Your task to perform on an android device: Show me popular games on the Play Store Image 0: 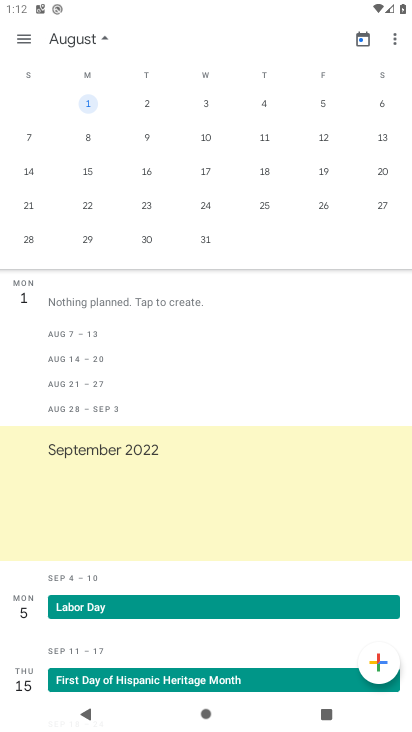
Step 0: press home button
Your task to perform on an android device: Show me popular games on the Play Store Image 1: 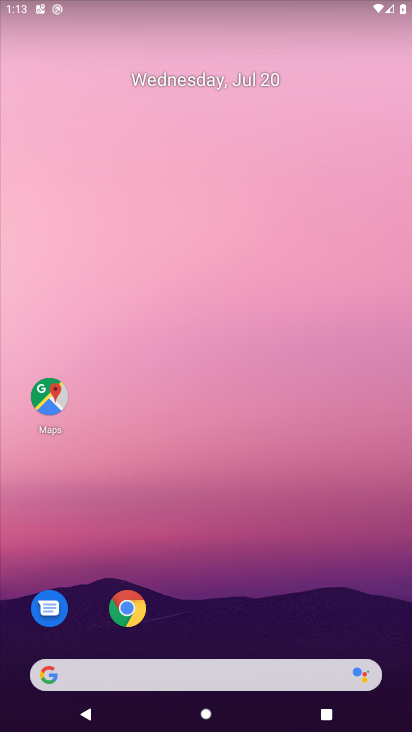
Step 1: drag from (213, 654) to (147, 251)
Your task to perform on an android device: Show me popular games on the Play Store Image 2: 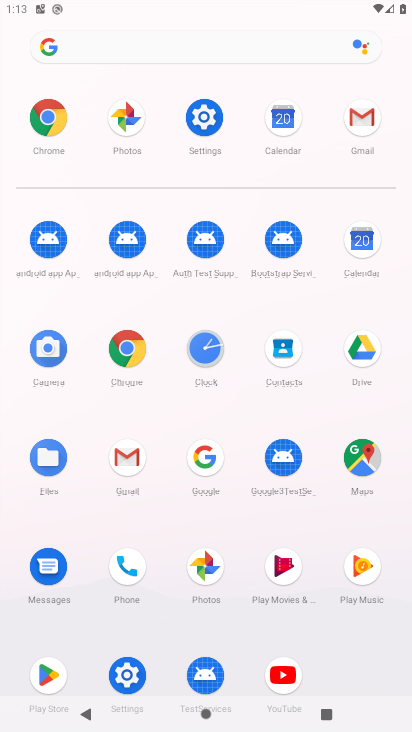
Step 2: click (44, 673)
Your task to perform on an android device: Show me popular games on the Play Store Image 3: 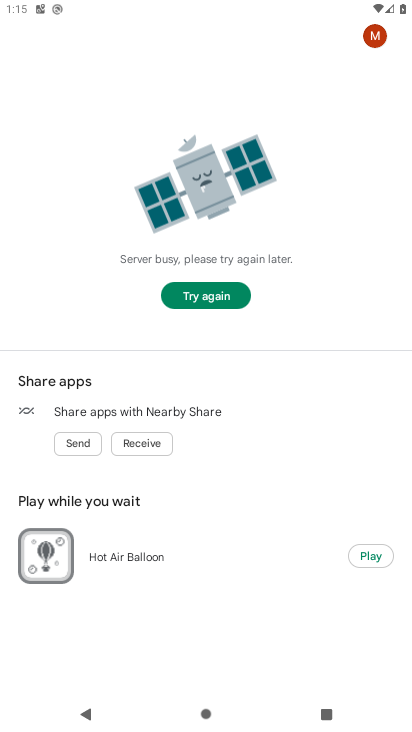
Step 3: task complete